Your task to perform on an android device: open app "Google Find My Device" (install if not already installed) Image 0: 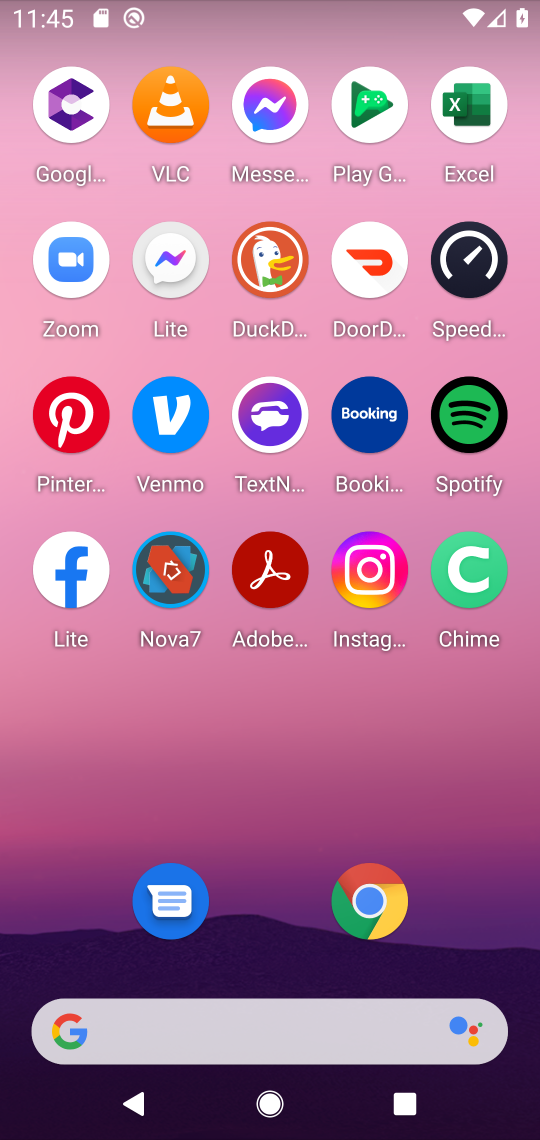
Step 0: drag from (268, 932) to (268, 19)
Your task to perform on an android device: open app "Google Find My Device" (install if not already installed) Image 1: 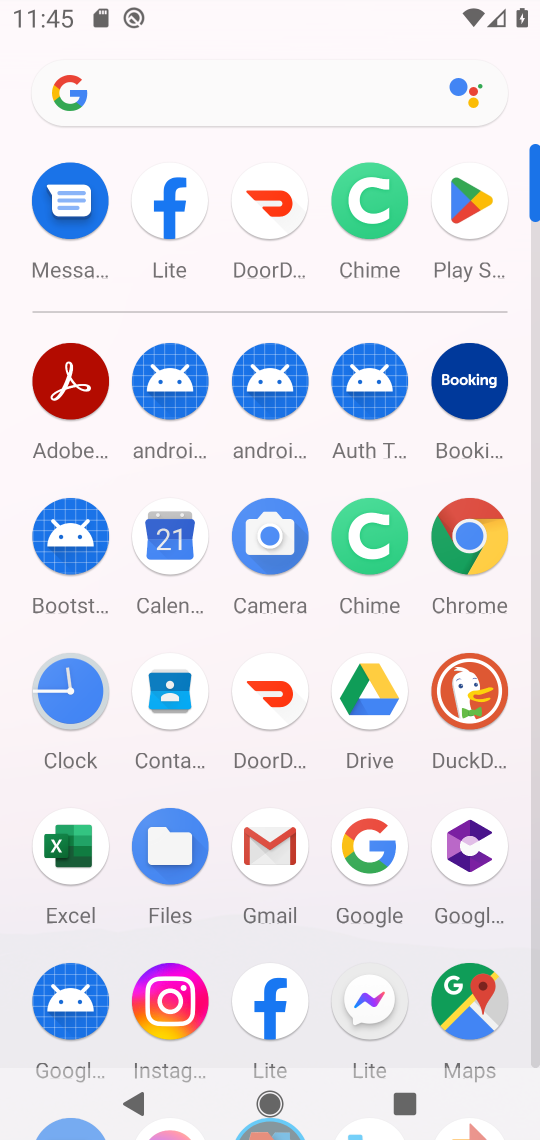
Step 1: click (458, 179)
Your task to perform on an android device: open app "Google Find My Device" (install if not already installed) Image 2: 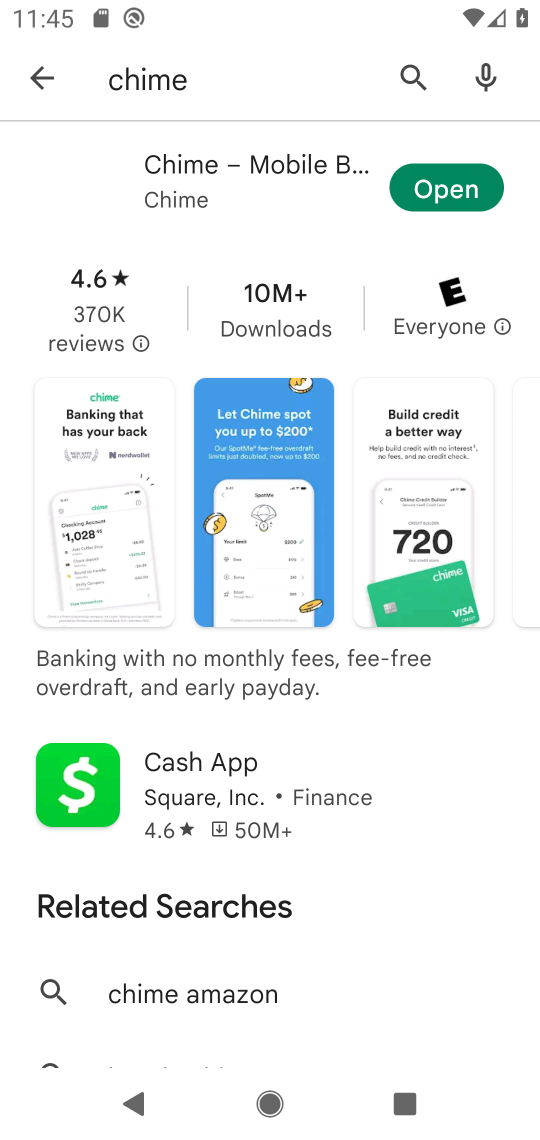
Step 2: click (409, 108)
Your task to perform on an android device: open app "Google Find My Device" (install if not already installed) Image 3: 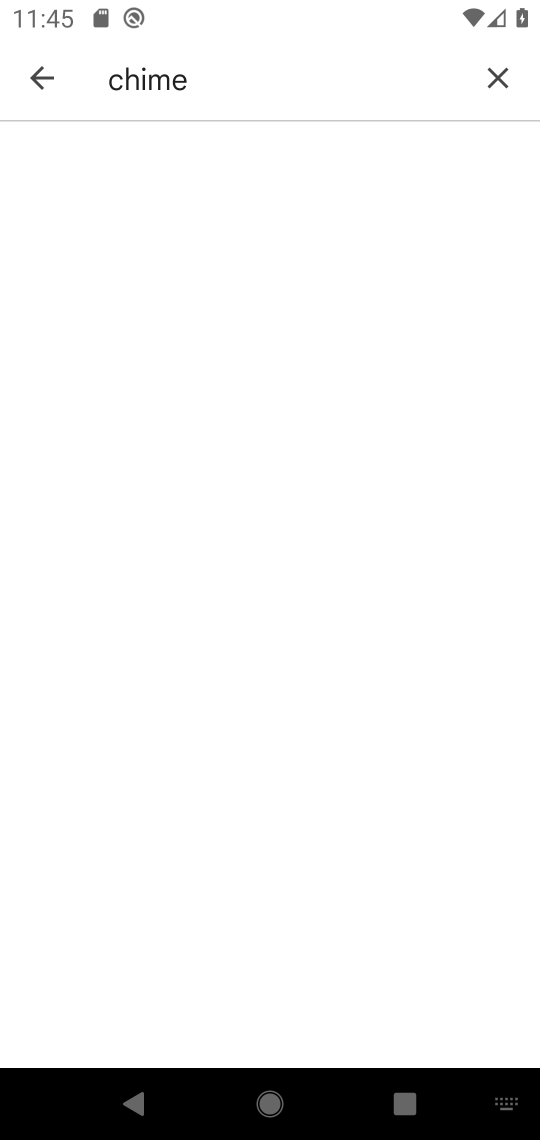
Step 3: click (483, 87)
Your task to perform on an android device: open app "Google Find My Device" (install if not already installed) Image 4: 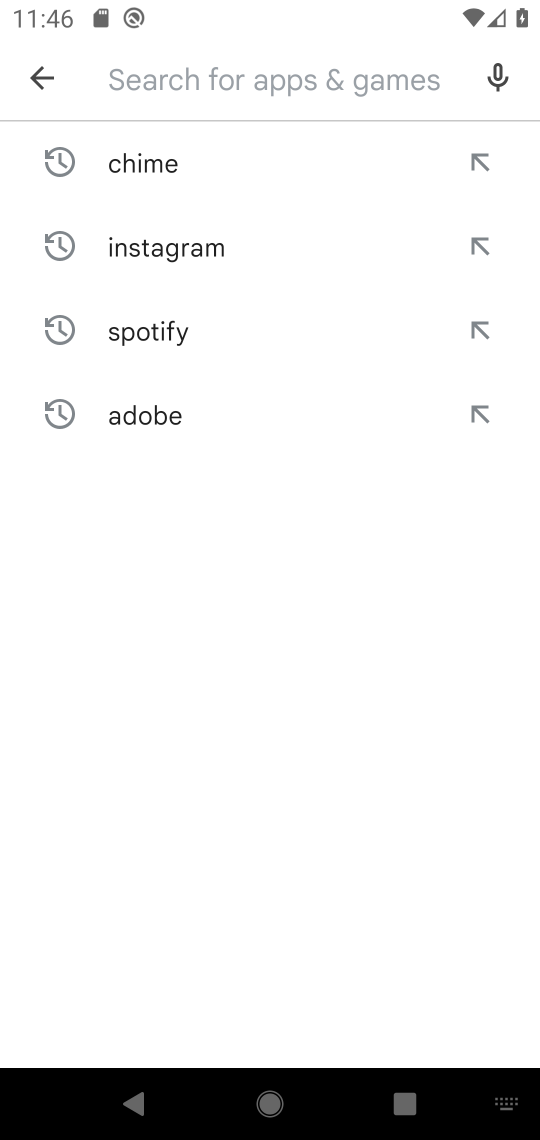
Step 4: type "google find"
Your task to perform on an android device: open app "Google Find My Device" (install if not already installed) Image 5: 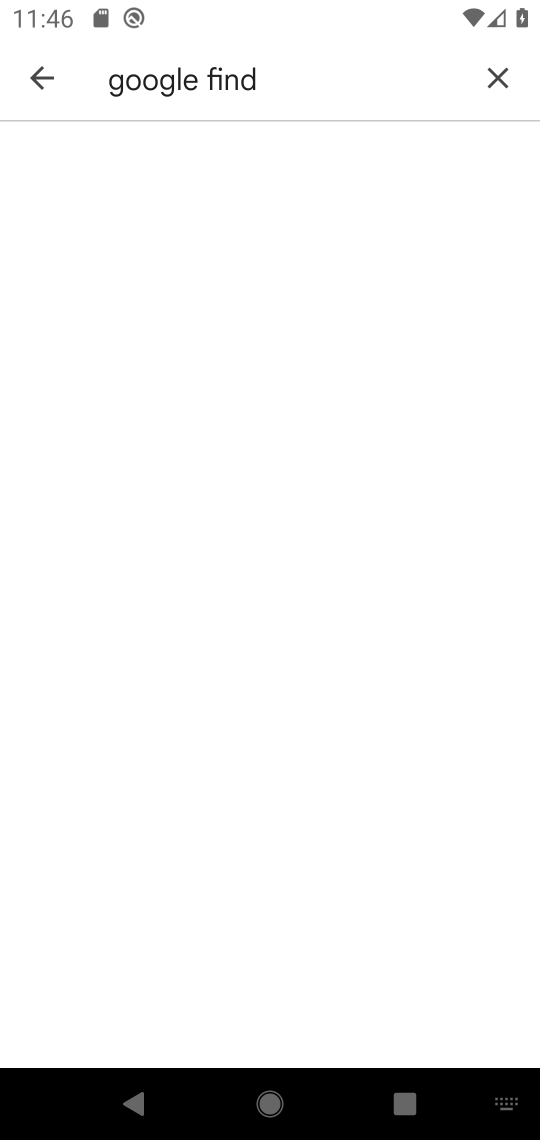
Step 5: click (496, 76)
Your task to perform on an android device: open app "Google Find My Device" (install if not already installed) Image 6: 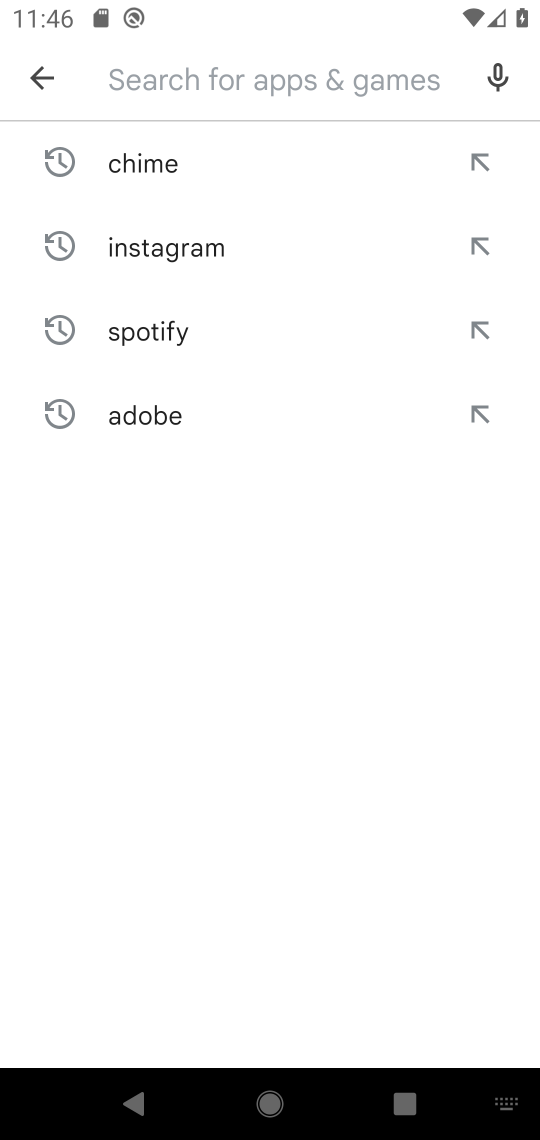
Step 6: type "find my device"
Your task to perform on an android device: open app "Google Find My Device" (install if not already installed) Image 7: 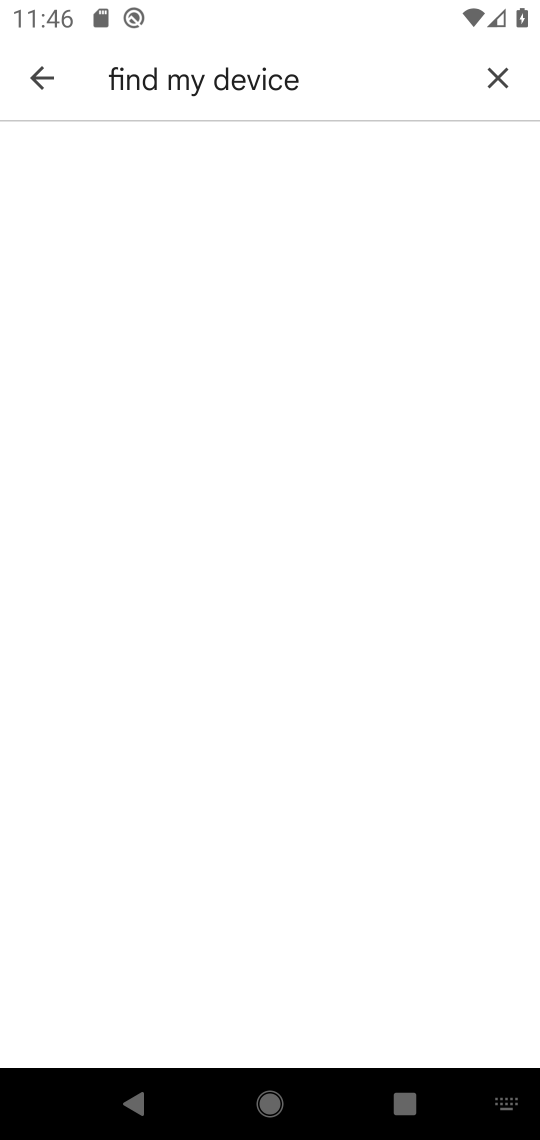
Step 7: task complete